Your task to perform on an android device: Open notification settings Image 0: 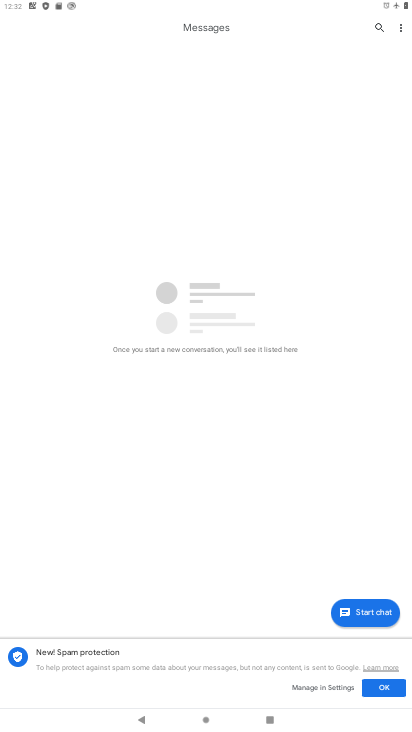
Step 0: press home button
Your task to perform on an android device: Open notification settings Image 1: 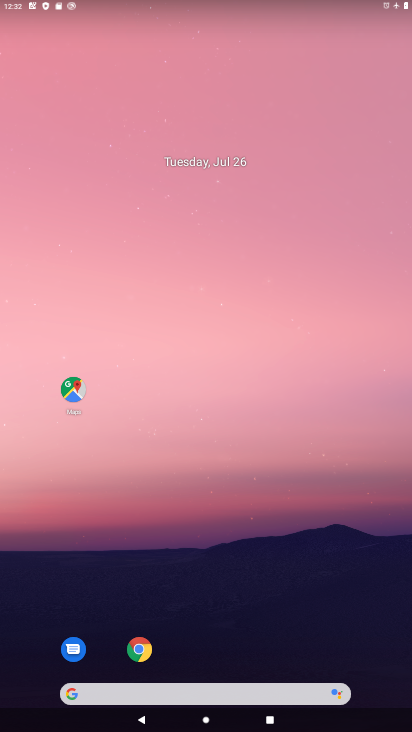
Step 1: drag from (224, 724) to (228, 64)
Your task to perform on an android device: Open notification settings Image 2: 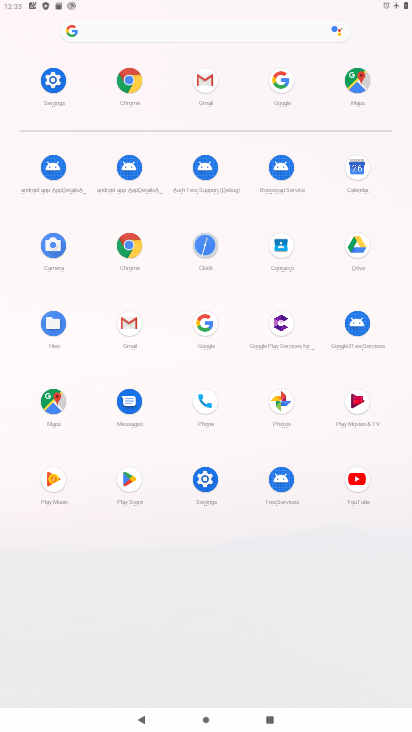
Step 2: click (54, 72)
Your task to perform on an android device: Open notification settings Image 3: 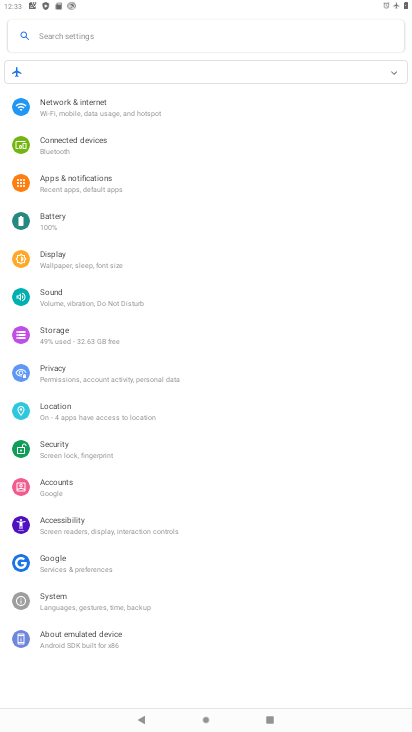
Step 3: click (82, 187)
Your task to perform on an android device: Open notification settings Image 4: 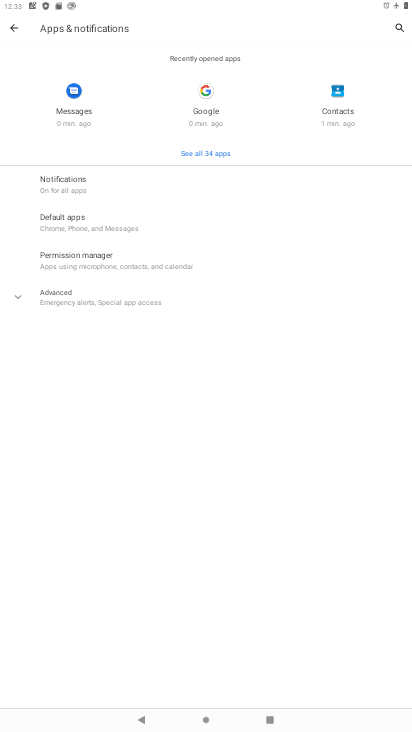
Step 4: click (62, 184)
Your task to perform on an android device: Open notification settings Image 5: 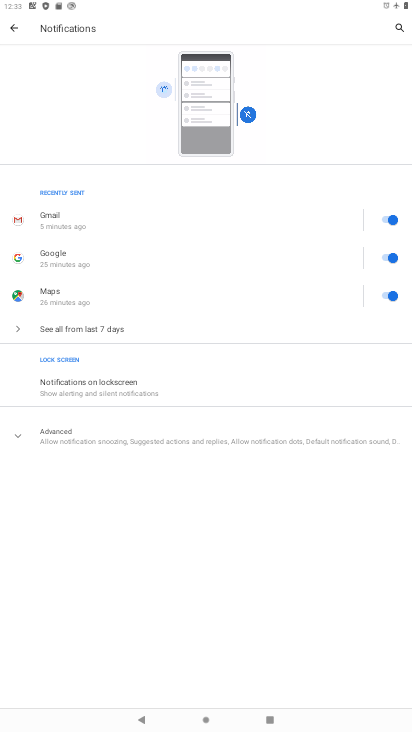
Step 5: task complete